Your task to perform on an android device: Open settings on Google Maps Image 0: 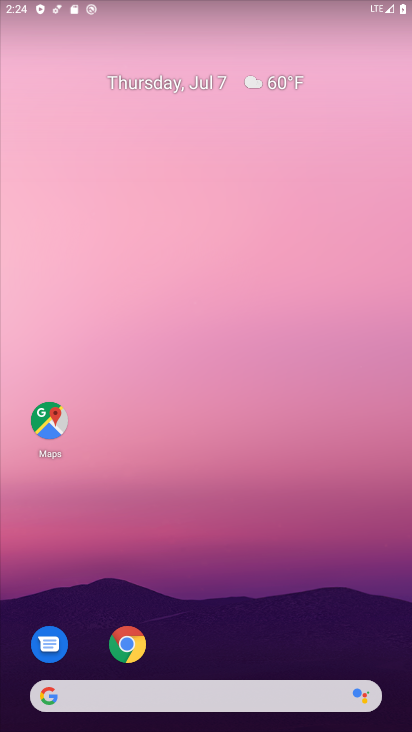
Step 0: drag from (241, 695) to (351, 133)
Your task to perform on an android device: Open settings on Google Maps Image 1: 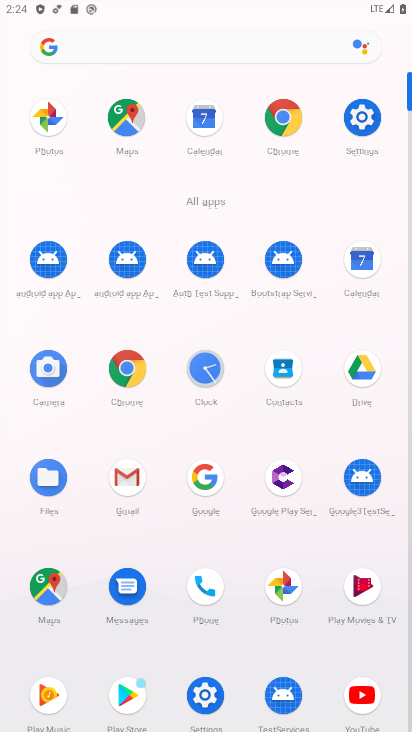
Step 1: click (49, 588)
Your task to perform on an android device: Open settings on Google Maps Image 2: 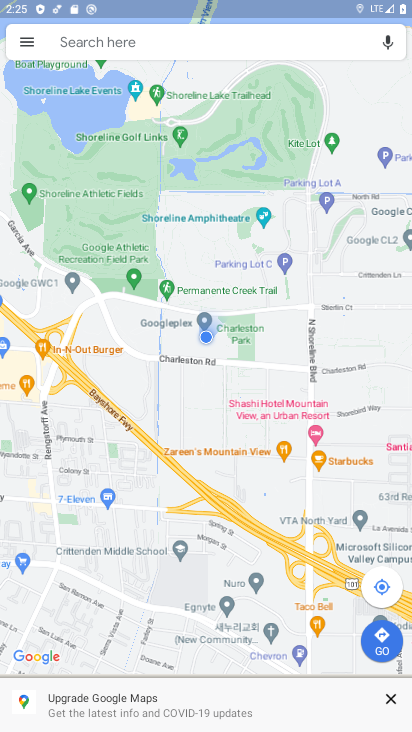
Step 2: click (22, 50)
Your task to perform on an android device: Open settings on Google Maps Image 3: 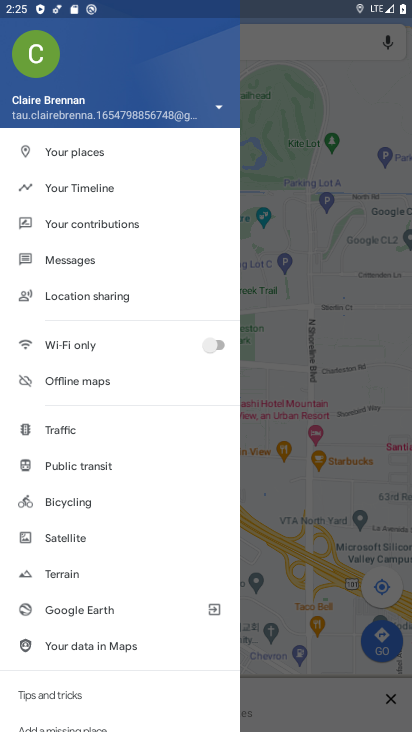
Step 3: drag from (99, 635) to (129, 270)
Your task to perform on an android device: Open settings on Google Maps Image 4: 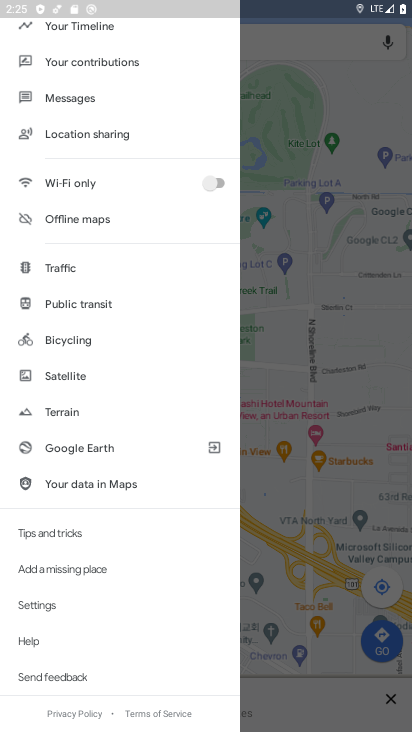
Step 4: click (57, 609)
Your task to perform on an android device: Open settings on Google Maps Image 5: 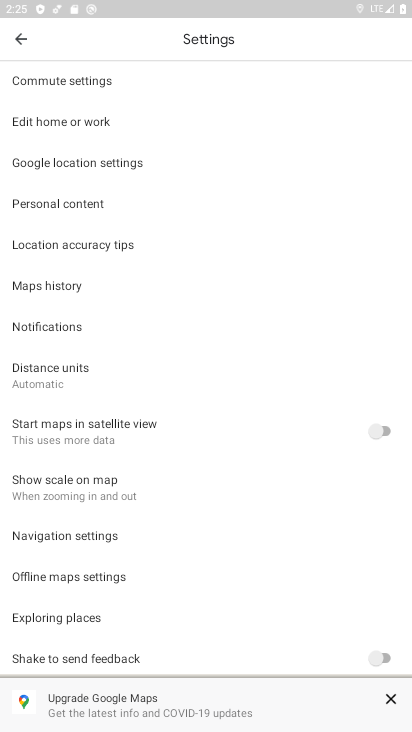
Step 5: task complete